Your task to perform on an android device: turn pop-ups off in chrome Image 0: 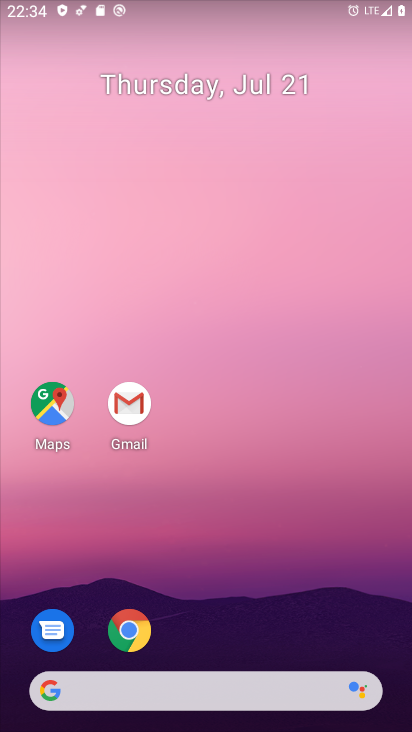
Step 0: drag from (198, 599) to (183, 163)
Your task to perform on an android device: turn pop-ups off in chrome Image 1: 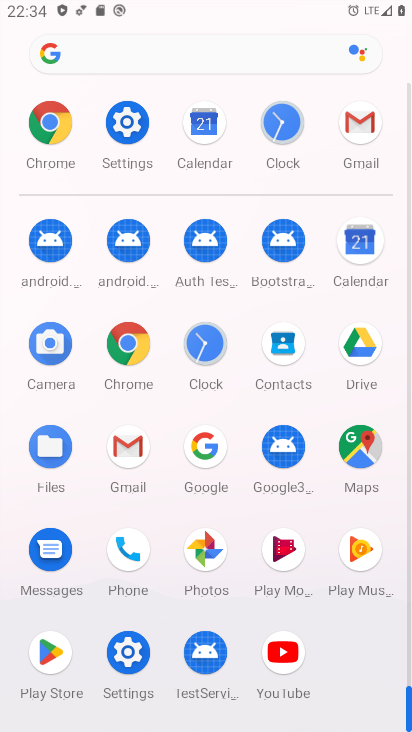
Step 1: click (42, 98)
Your task to perform on an android device: turn pop-ups off in chrome Image 2: 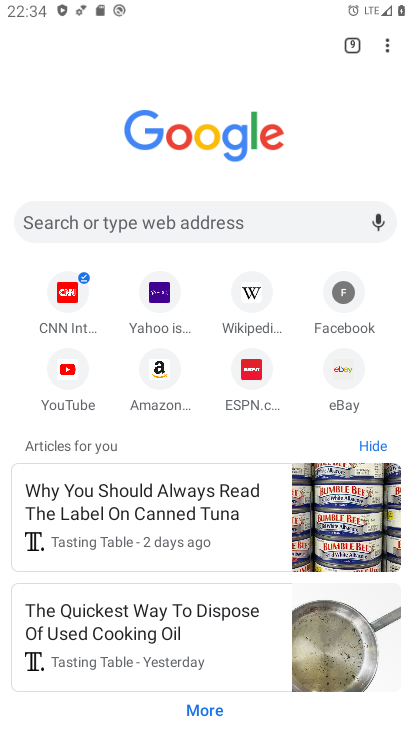
Step 2: drag from (388, 49) to (222, 382)
Your task to perform on an android device: turn pop-ups off in chrome Image 3: 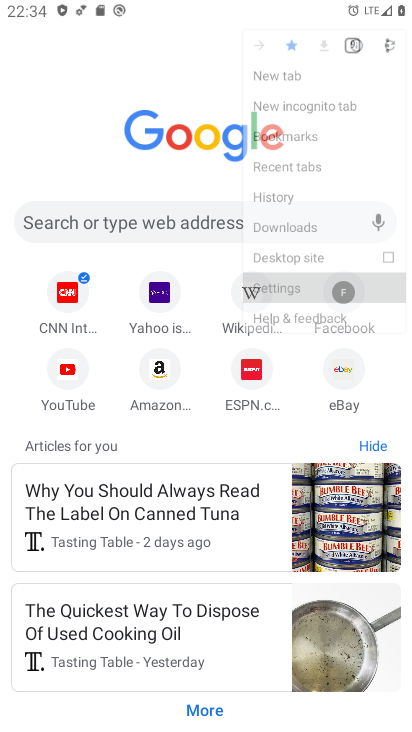
Step 3: click (227, 385)
Your task to perform on an android device: turn pop-ups off in chrome Image 4: 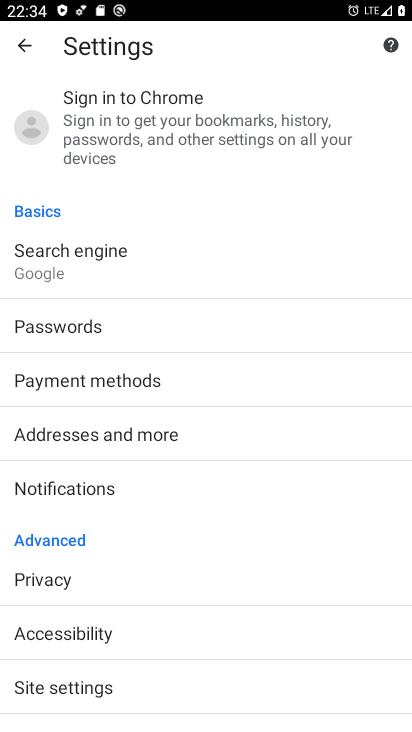
Step 4: drag from (33, 612) to (17, 328)
Your task to perform on an android device: turn pop-ups off in chrome Image 5: 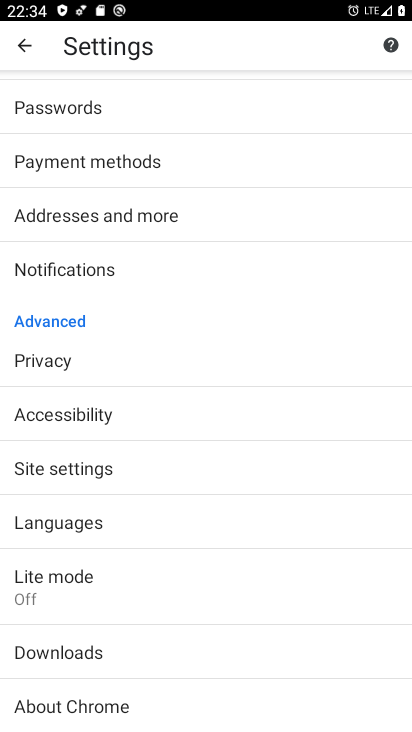
Step 5: click (59, 473)
Your task to perform on an android device: turn pop-ups off in chrome Image 6: 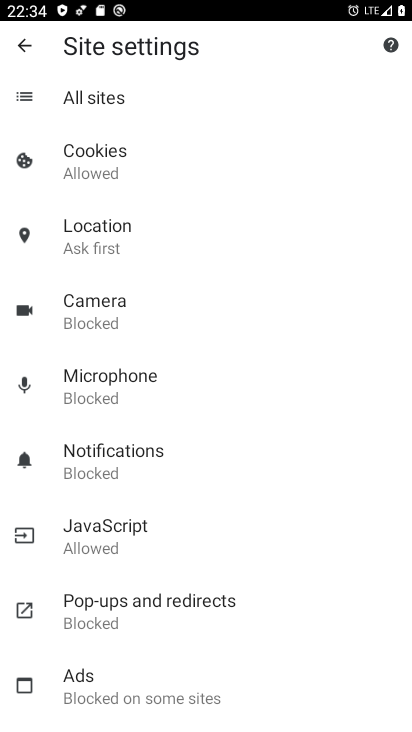
Step 6: click (81, 601)
Your task to perform on an android device: turn pop-ups off in chrome Image 7: 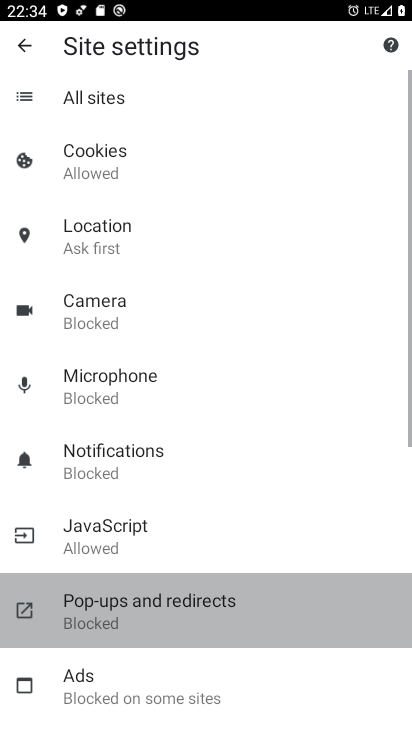
Step 7: click (84, 603)
Your task to perform on an android device: turn pop-ups off in chrome Image 8: 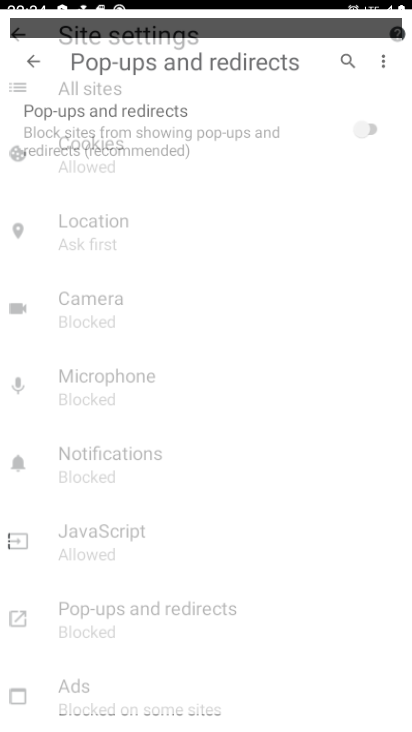
Step 8: click (91, 604)
Your task to perform on an android device: turn pop-ups off in chrome Image 9: 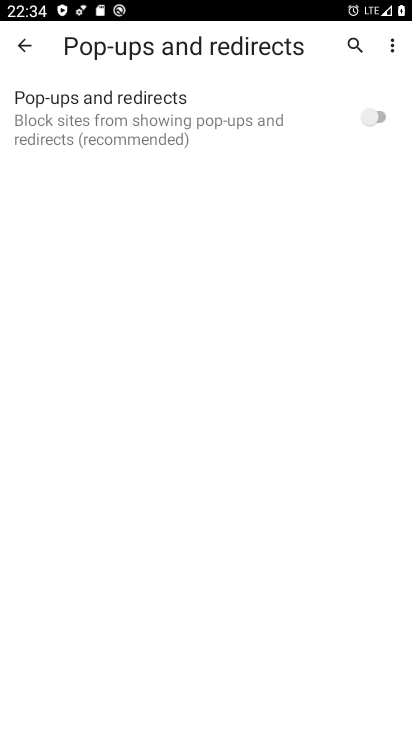
Step 9: click (361, 110)
Your task to perform on an android device: turn pop-ups off in chrome Image 10: 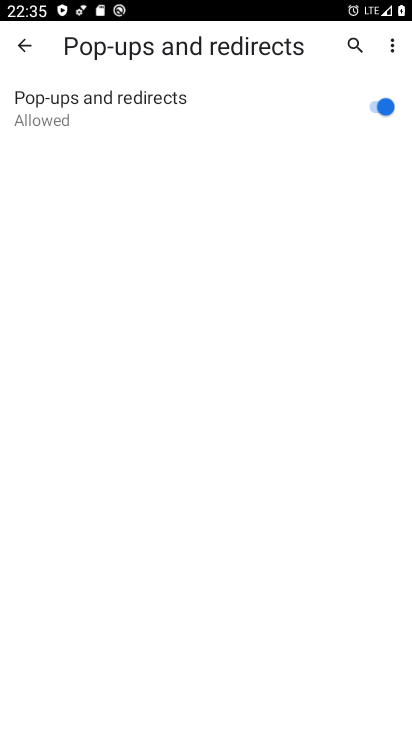
Step 10: click (370, 110)
Your task to perform on an android device: turn pop-ups off in chrome Image 11: 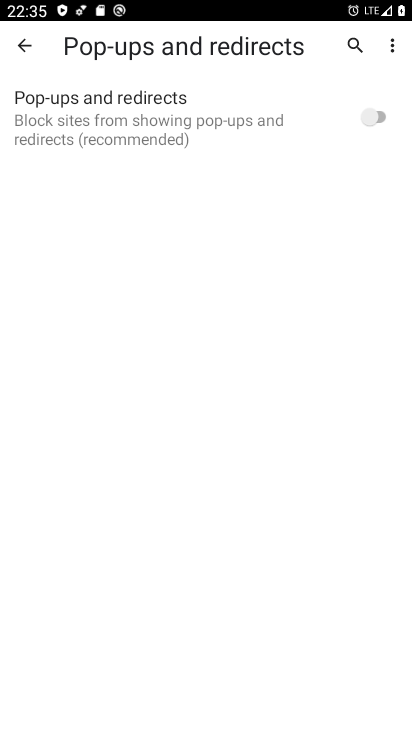
Step 11: task complete